Your task to perform on an android device: clear all cookies in the chrome app Image 0: 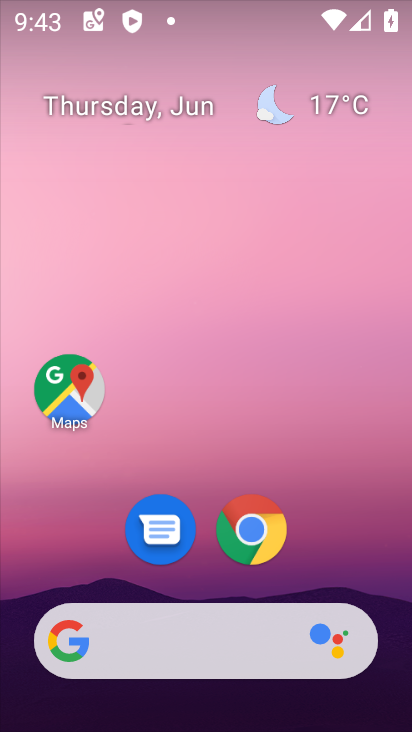
Step 0: click (251, 528)
Your task to perform on an android device: clear all cookies in the chrome app Image 1: 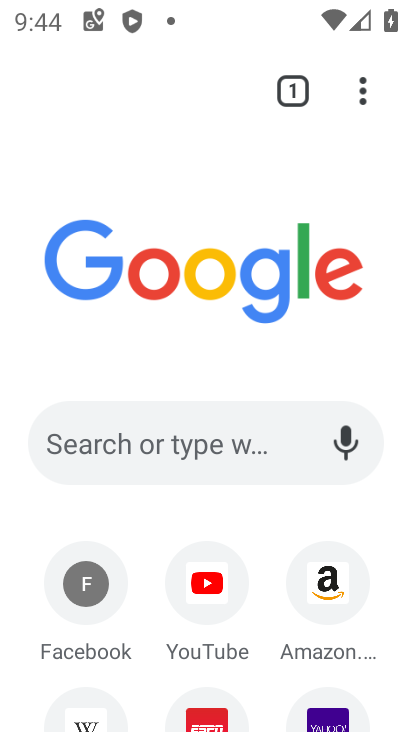
Step 1: click (364, 95)
Your task to perform on an android device: clear all cookies in the chrome app Image 2: 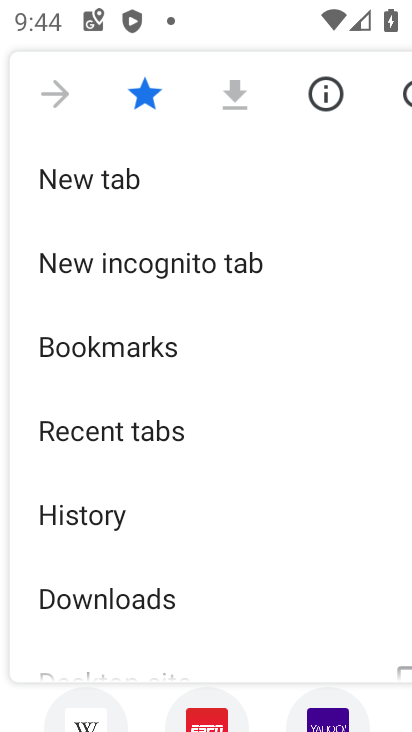
Step 2: click (103, 519)
Your task to perform on an android device: clear all cookies in the chrome app Image 3: 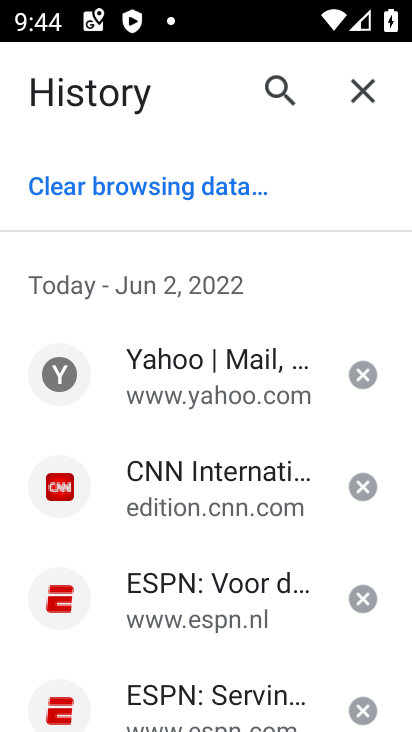
Step 3: click (143, 183)
Your task to perform on an android device: clear all cookies in the chrome app Image 4: 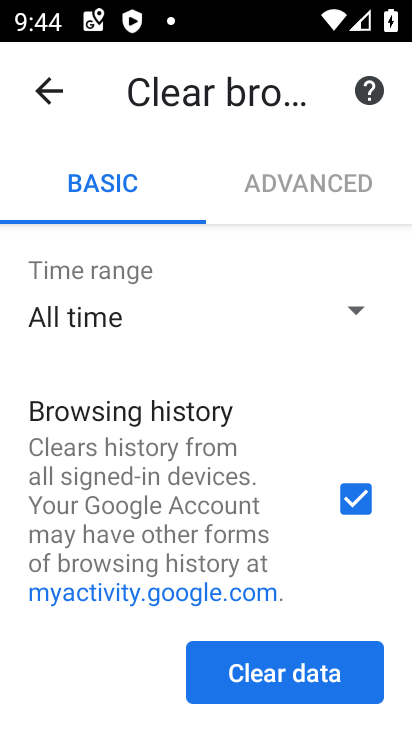
Step 4: drag from (302, 517) to (276, 332)
Your task to perform on an android device: clear all cookies in the chrome app Image 5: 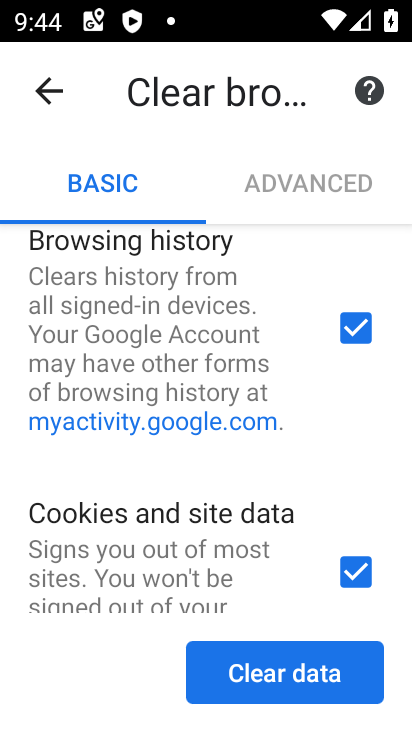
Step 5: click (357, 323)
Your task to perform on an android device: clear all cookies in the chrome app Image 6: 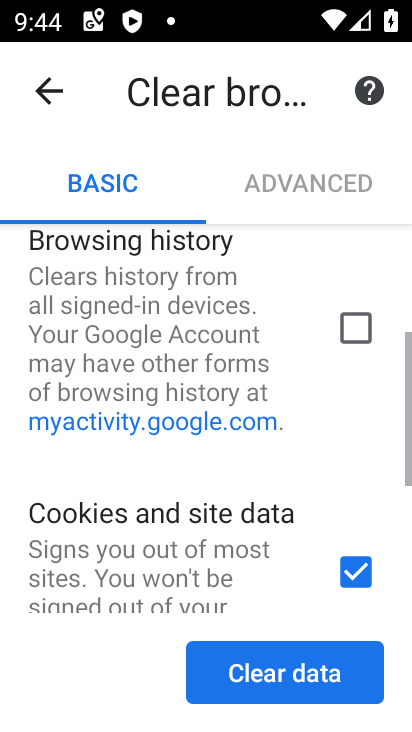
Step 6: drag from (320, 503) to (288, 168)
Your task to perform on an android device: clear all cookies in the chrome app Image 7: 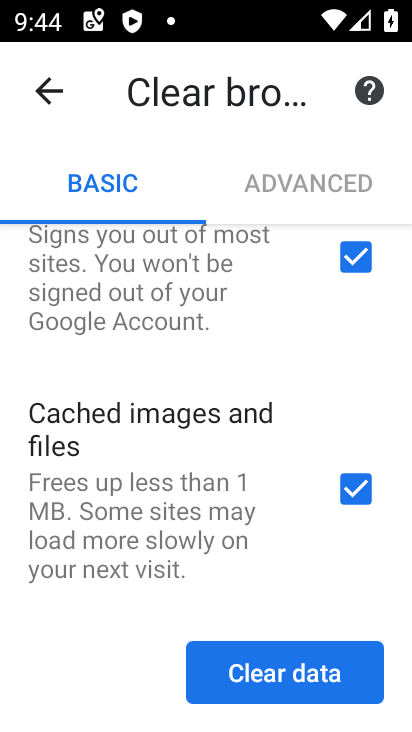
Step 7: click (349, 486)
Your task to perform on an android device: clear all cookies in the chrome app Image 8: 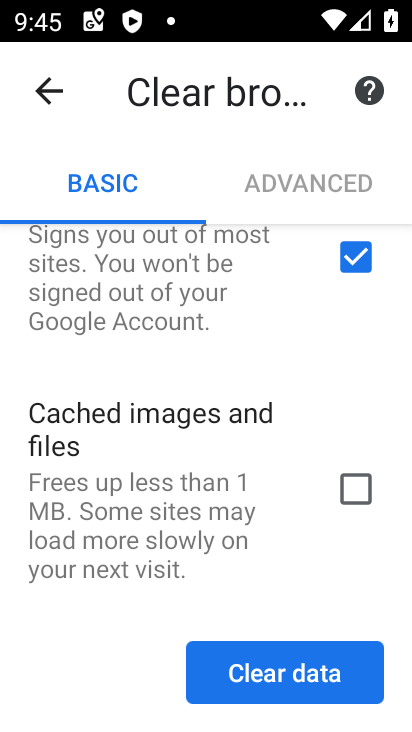
Step 8: click (290, 669)
Your task to perform on an android device: clear all cookies in the chrome app Image 9: 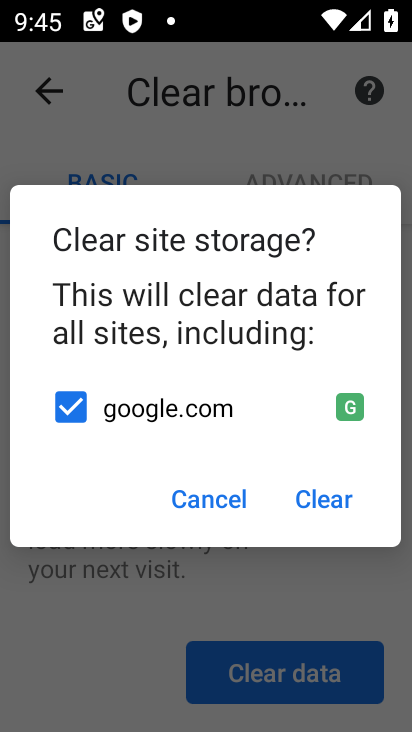
Step 9: click (335, 499)
Your task to perform on an android device: clear all cookies in the chrome app Image 10: 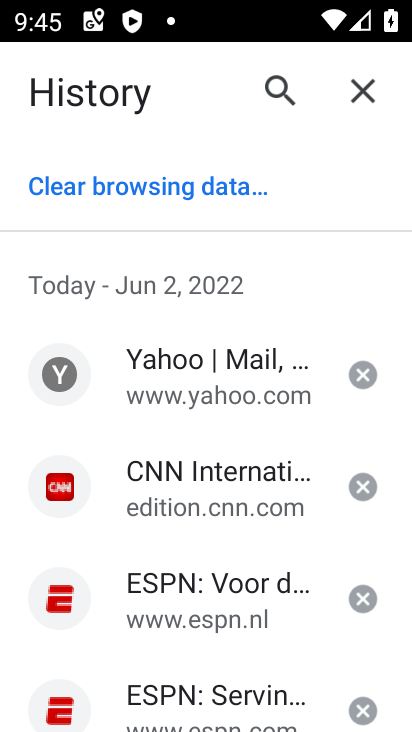
Step 10: task complete